Your task to perform on an android device: Open Maps and search for coffee Image 0: 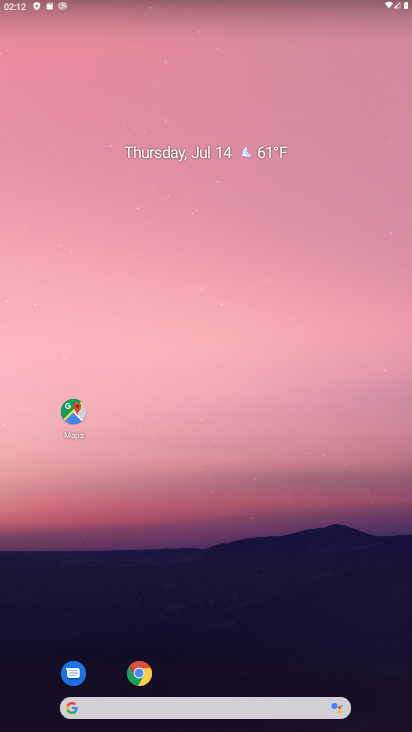
Step 0: click (73, 423)
Your task to perform on an android device: Open Maps and search for coffee Image 1: 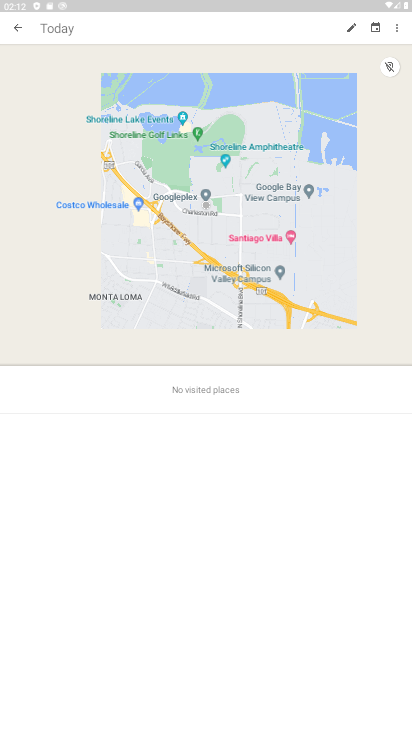
Step 1: click (126, 29)
Your task to perform on an android device: Open Maps and search for coffee Image 2: 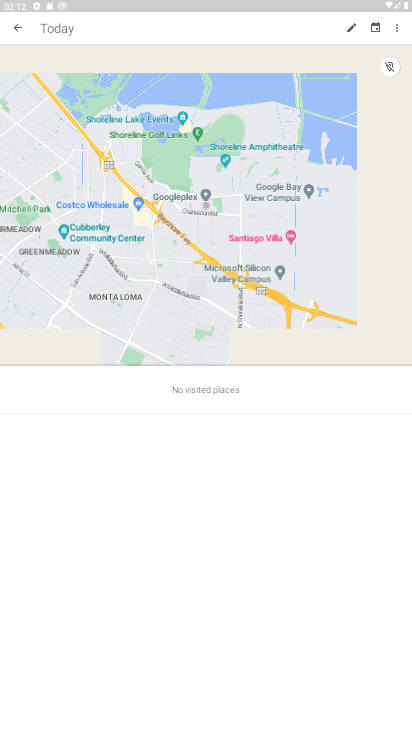
Step 2: type "coffee"
Your task to perform on an android device: Open Maps and search for coffee Image 3: 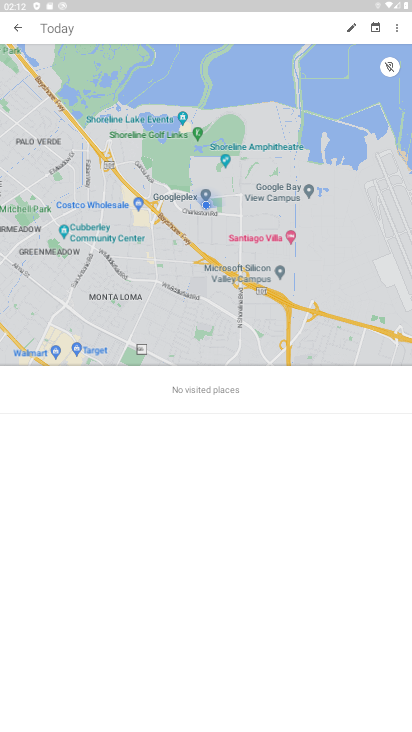
Step 3: task complete